Your task to perform on an android device: Show me productivity apps on the Play Store Image 0: 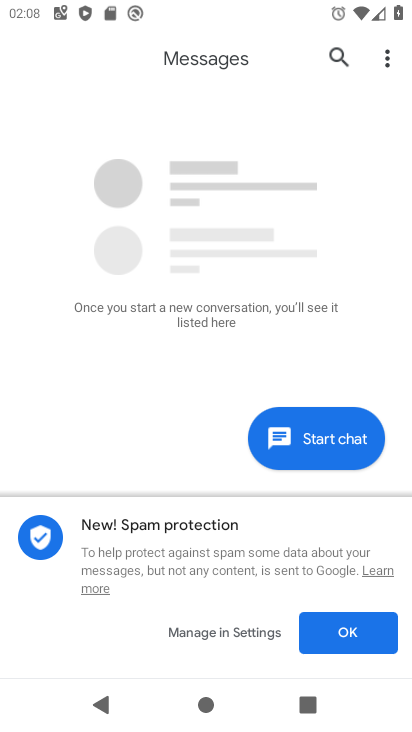
Step 0: press home button
Your task to perform on an android device: Show me productivity apps on the Play Store Image 1: 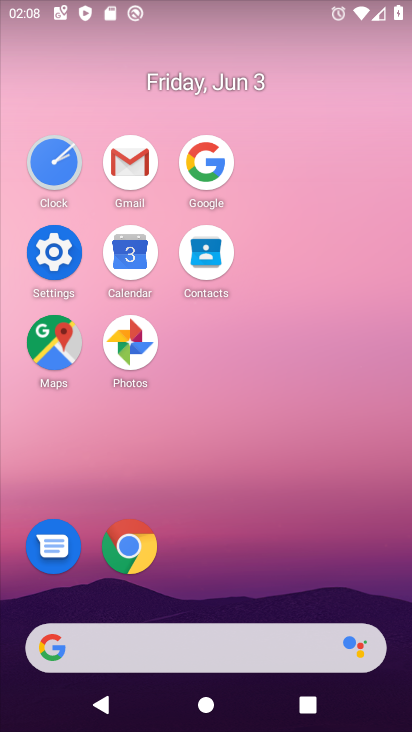
Step 1: drag from (237, 576) to (270, 138)
Your task to perform on an android device: Show me productivity apps on the Play Store Image 2: 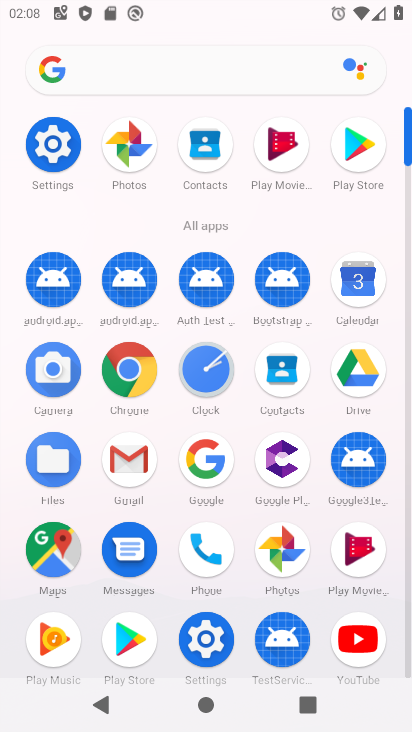
Step 2: click (118, 638)
Your task to perform on an android device: Show me productivity apps on the Play Store Image 3: 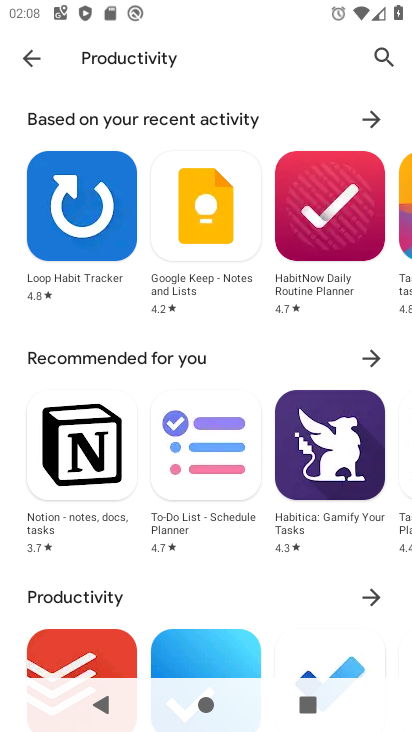
Step 3: task complete